Your task to perform on an android device: change timer sound Image 0: 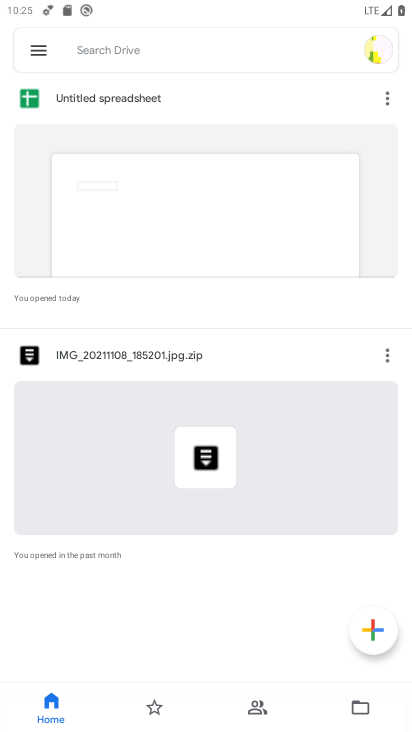
Step 0: press home button
Your task to perform on an android device: change timer sound Image 1: 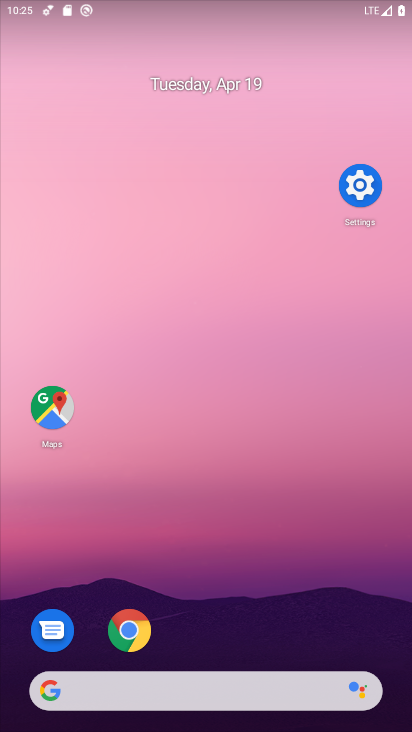
Step 1: drag from (270, 536) to (308, 230)
Your task to perform on an android device: change timer sound Image 2: 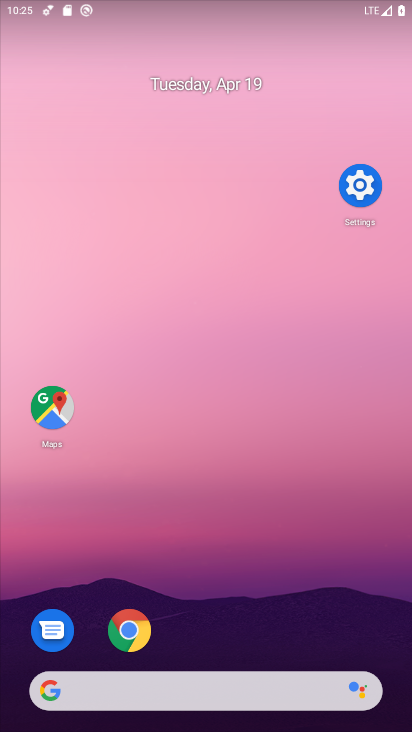
Step 2: drag from (189, 617) to (261, 151)
Your task to perform on an android device: change timer sound Image 3: 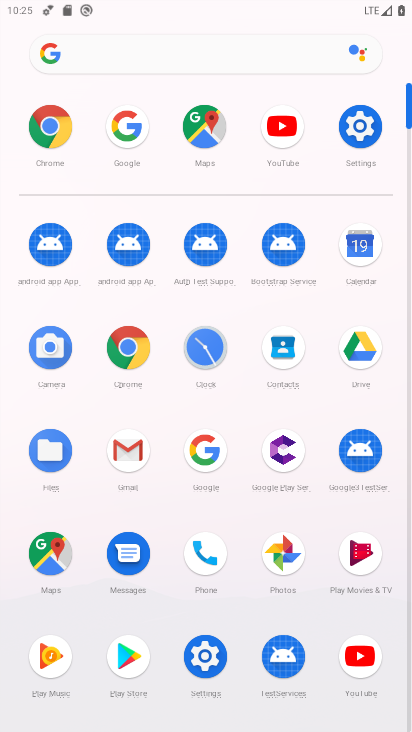
Step 3: click (215, 362)
Your task to perform on an android device: change timer sound Image 4: 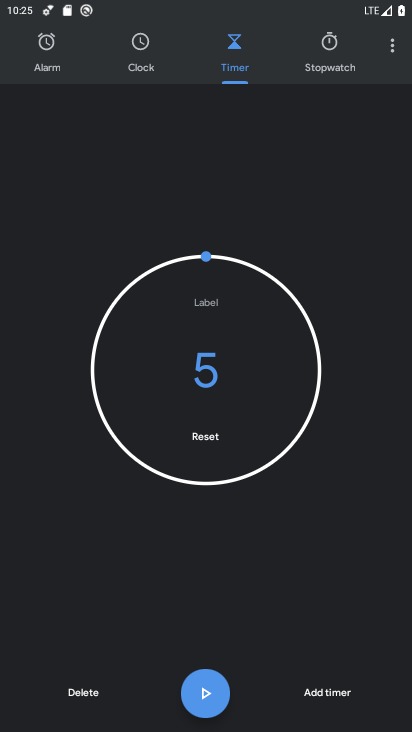
Step 4: click (390, 58)
Your task to perform on an android device: change timer sound Image 5: 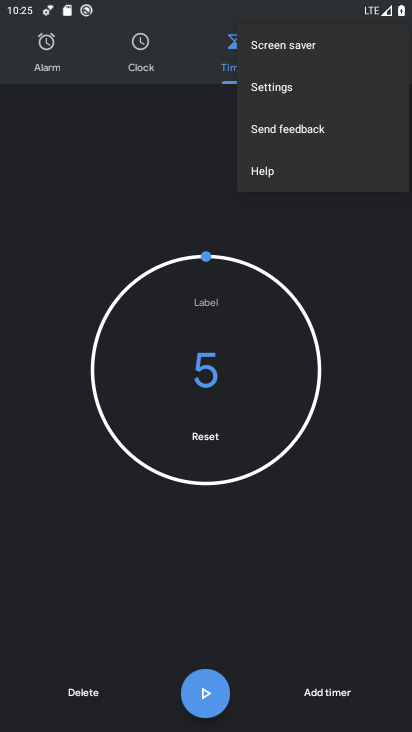
Step 5: click (317, 84)
Your task to perform on an android device: change timer sound Image 6: 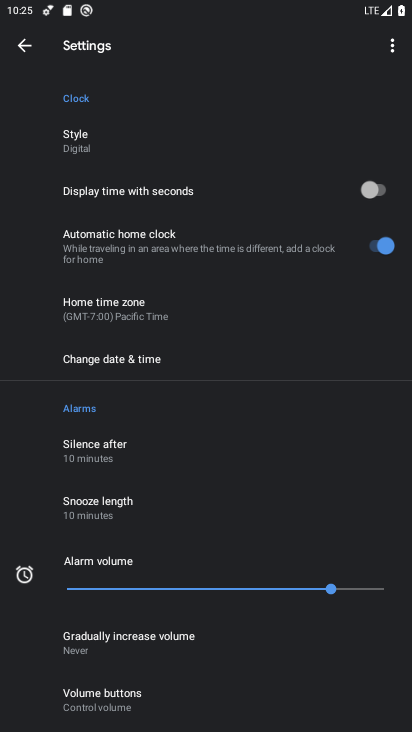
Step 6: drag from (162, 471) to (176, 326)
Your task to perform on an android device: change timer sound Image 7: 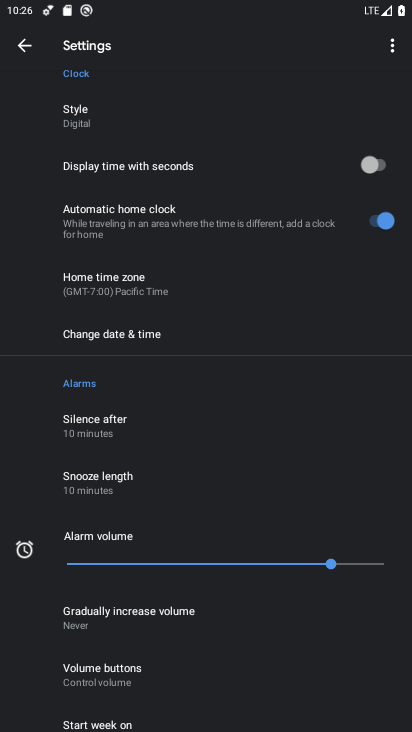
Step 7: drag from (151, 610) to (199, 357)
Your task to perform on an android device: change timer sound Image 8: 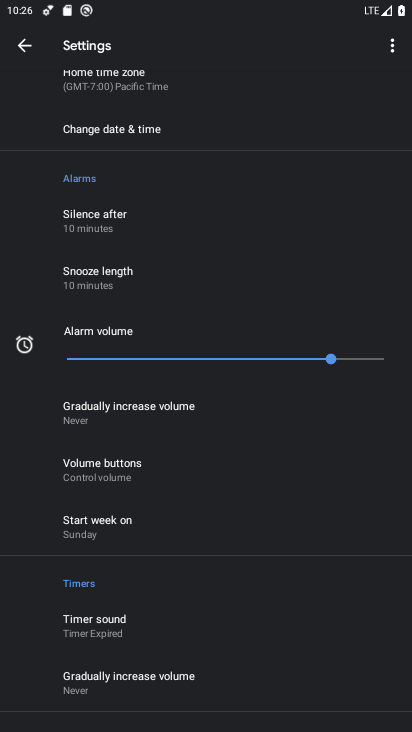
Step 8: drag from (178, 576) to (182, 345)
Your task to perform on an android device: change timer sound Image 9: 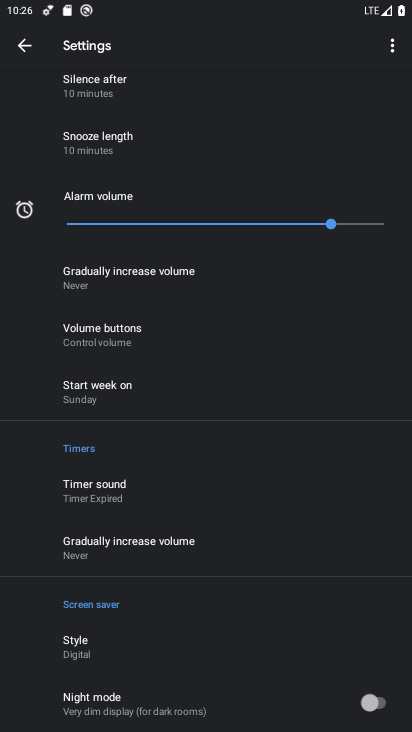
Step 9: click (144, 495)
Your task to perform on an android device: change timer sound Image 10: 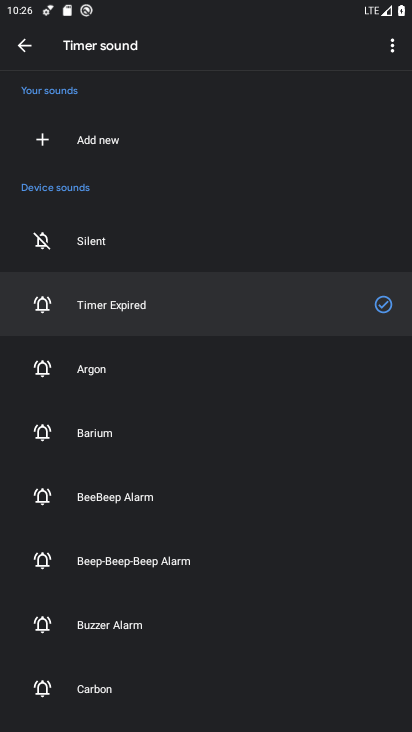
Step 10: click (124, 368)
Your task to perform on an android device: change timer sound Image 11: 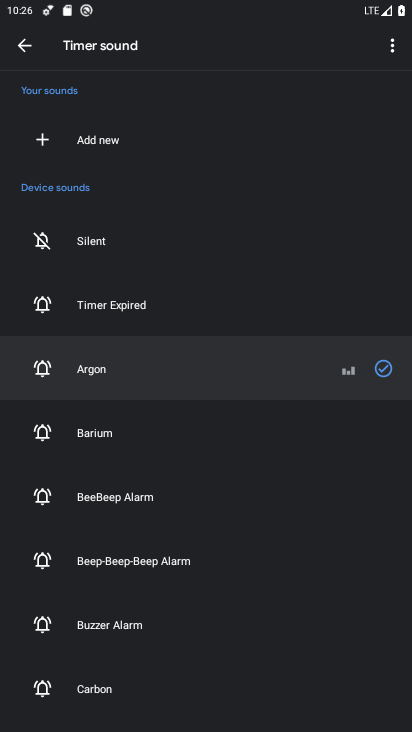
Step 11: task complete